Your task to perform on an android device: Go to sound settings Image 0: 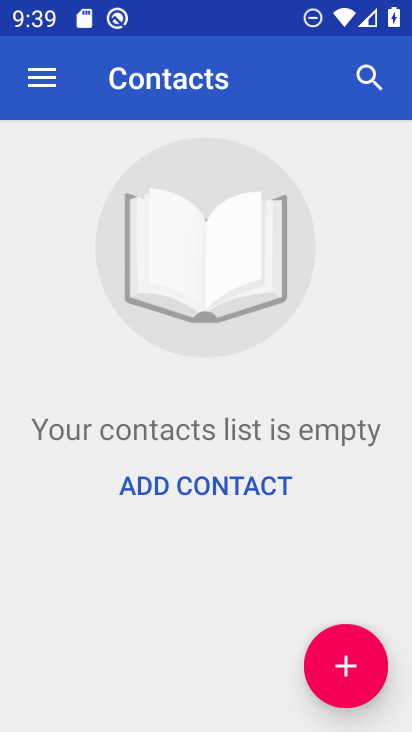
Step 0: press home button
Your task to perform on an android device: Go to sound settings Image 1: 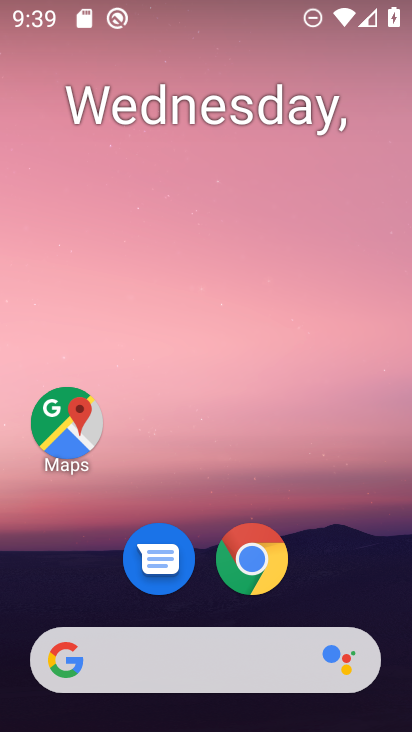
Step 1: drag from (324, 594) to (340, 149)
Your task to perform on an android device: Go to sound settings Image 2: 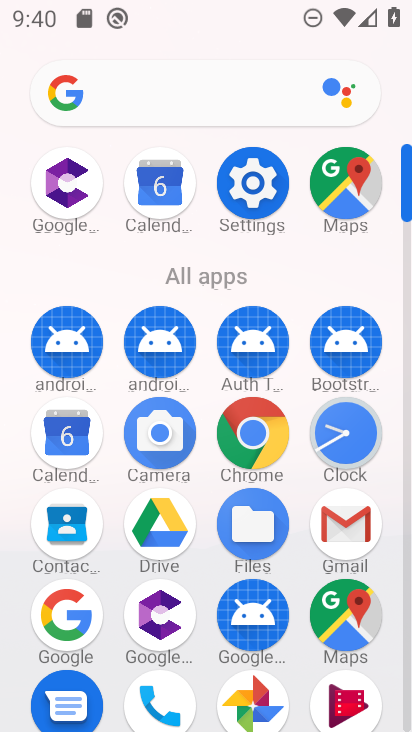
Step 2: click (273, 213)
Your task to perform on an android device: Go to sound settings Image 3: 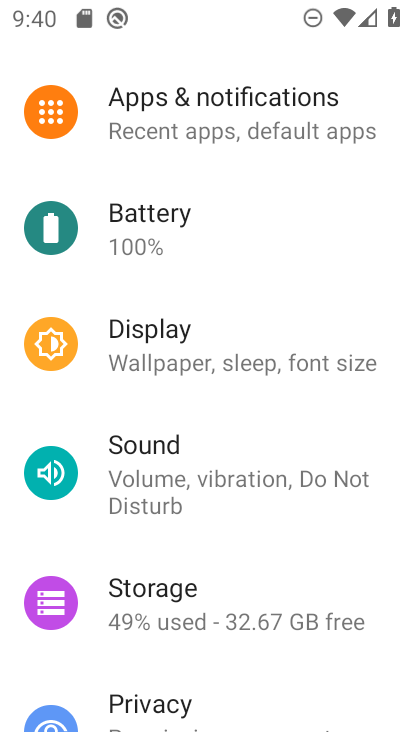
Step 3: drag from (340, 141) to (353, 266)
Your task to perform on an android device: Go to sound settings Image 4: 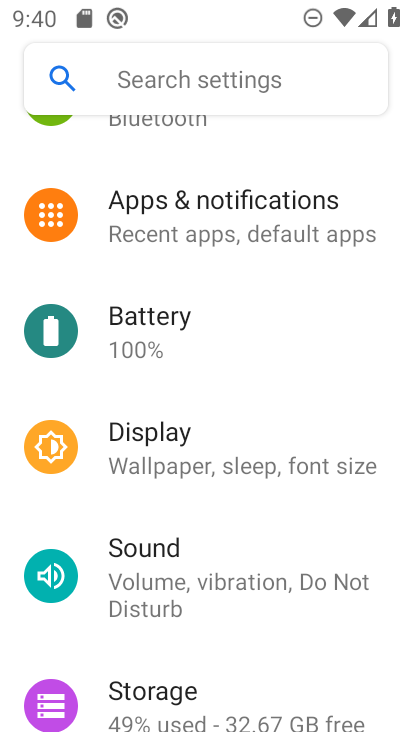
Step 4: drag from (379, 157) to (388, 318)
Your task to perform on an android device: Go to sound settings Image 5: 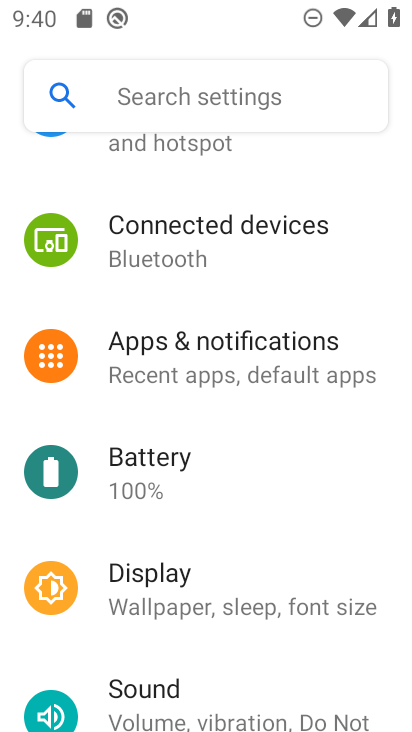
Step 5: drag from (362, 170) to (356, 324)
Your task to perform on an android device: Go to sound settings Image 6: 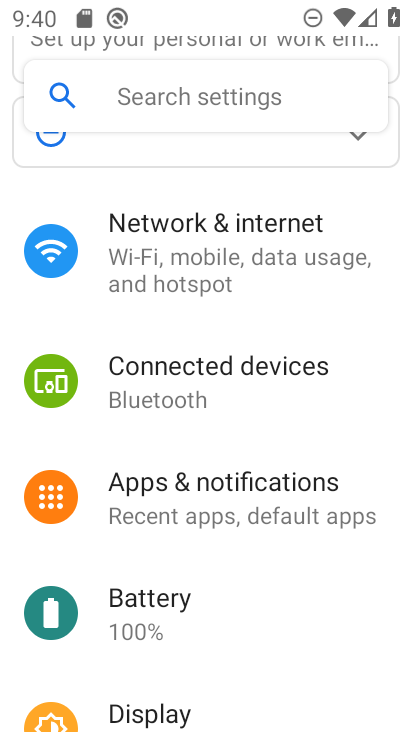
Step 6: drag from (356, 189) to (360, 341)
Your task to perform on an android device: Go to sound settings Image 7: 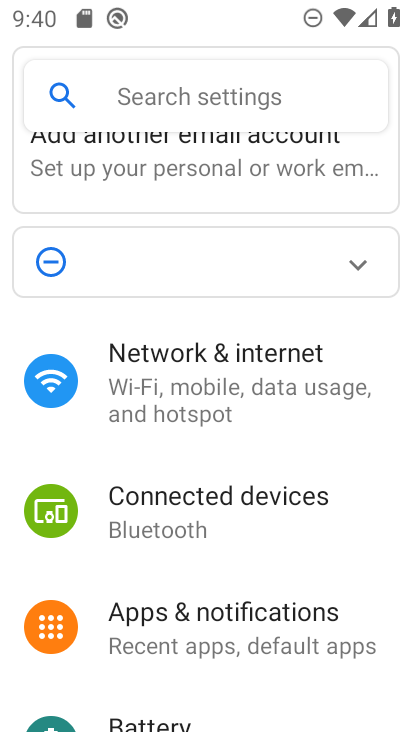
Step 7: drag from (363, 445) to (361, 311)
Your task to perform on an android device: Go to sound settings Image 8: 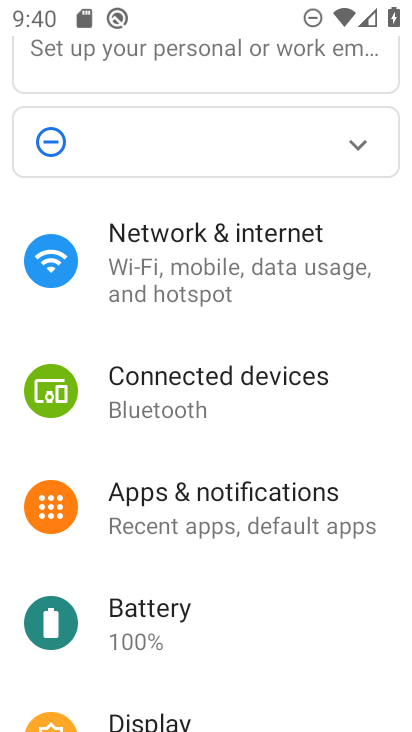
Step 8: drag from (376, 428) to (381, 335)
Your task to perform on an android device: Go to sound settings Image 9: 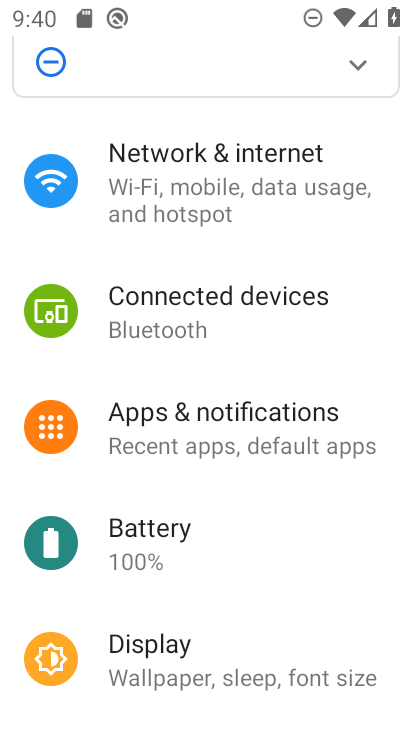
Step 9: drag from (382, 405) to (387, 311)
Your task to perform on an android device: Go to sound settings Image 10: 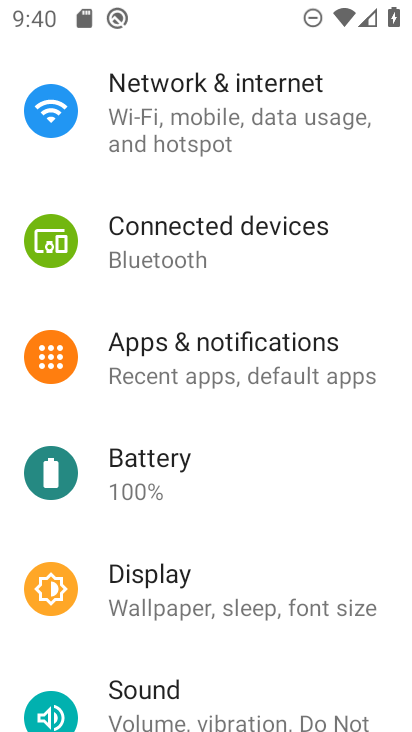
Step 10: drag from (387, 439) to (391, 355)
Your task to perform on an android device: Go to sound settings Image 11: 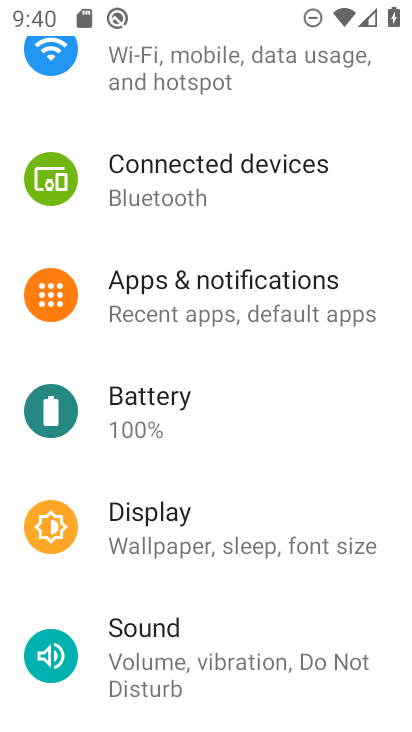
Step 11: drag from (371, 477) to (372, 371)
Your task to perform on an android device: Go to sound settings Image 12: 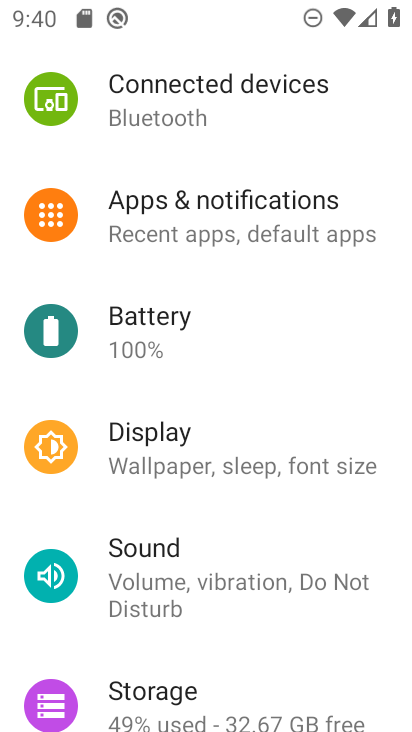
Step 12: drag from (369, 521) to (368, 419)
Your task to perform on an android device: Go to sound settings Image 13: 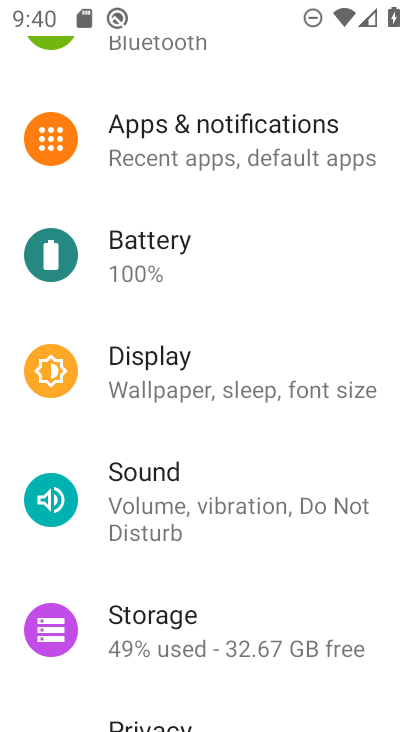
Step 13: drag from (369, 535) to (378, 407)
Your task to perform on an android device: Go to sound settings Image 14: 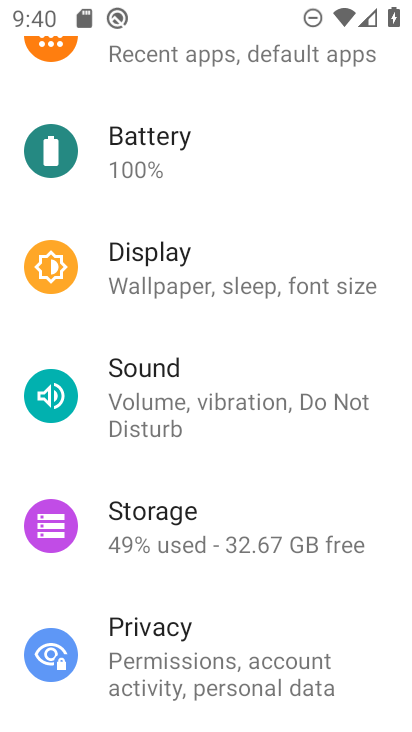
Step 14: click (280, 406)
Your task to perform on an android device: Go to sound settings Image 15: 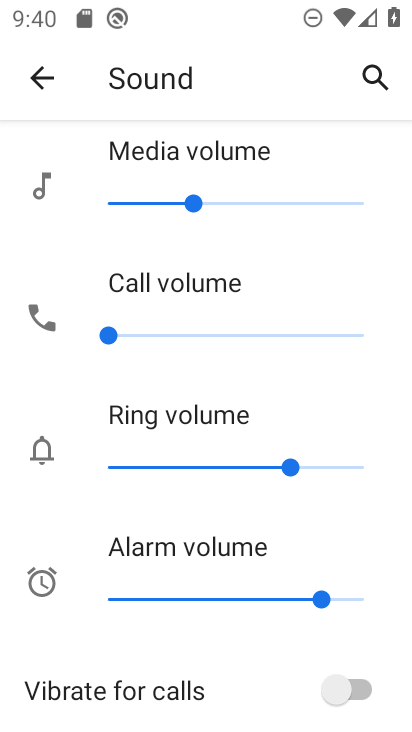
Step 15: task complete